Your task to perform on an android device: Go to accessibility settings Image 0: 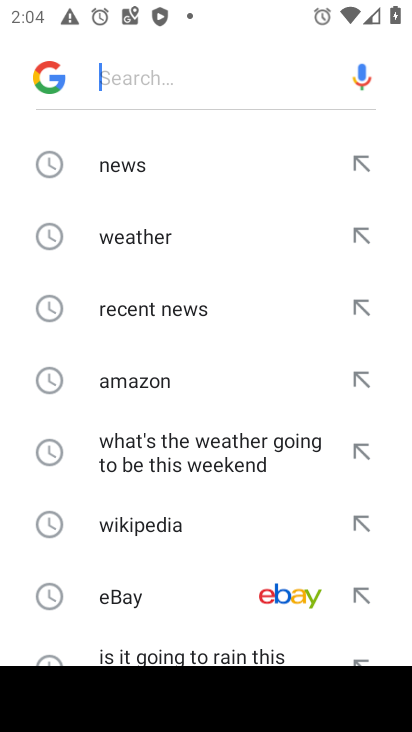
Step 0: press home button
Your task to perform on an android device: Go to accessibility settings Image 1: 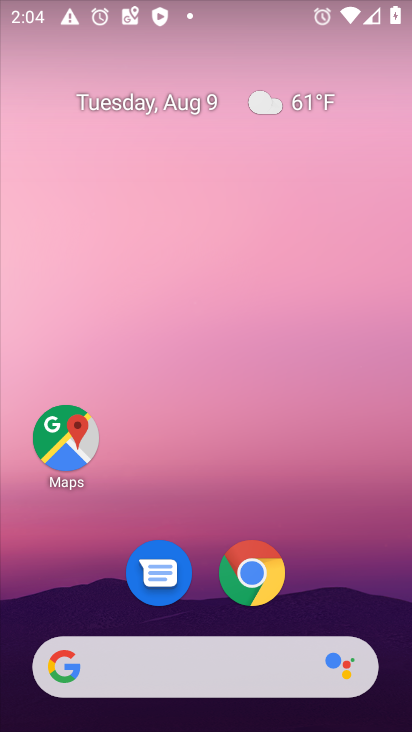
Step 1: drag from (38, 548) to (171, 98)
Your task to perform on an android device: Go to accessibility settings Image 2: 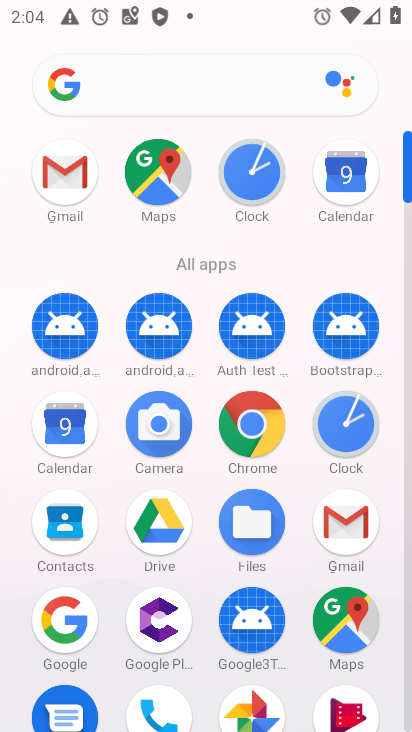
Step 2: drag from (52, 363) to (150, 125)
Your task to perform on an android device: Go to accessibility settings Image 3: 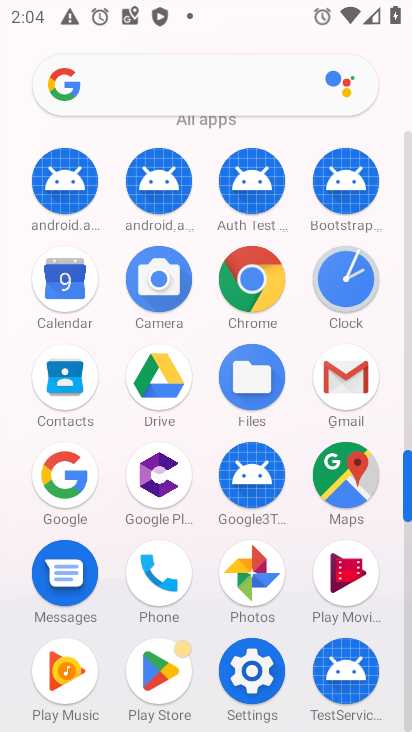
Step 3: click (248, 671)
Your task to perform on an android device: Go to accessibility settings Image 4: 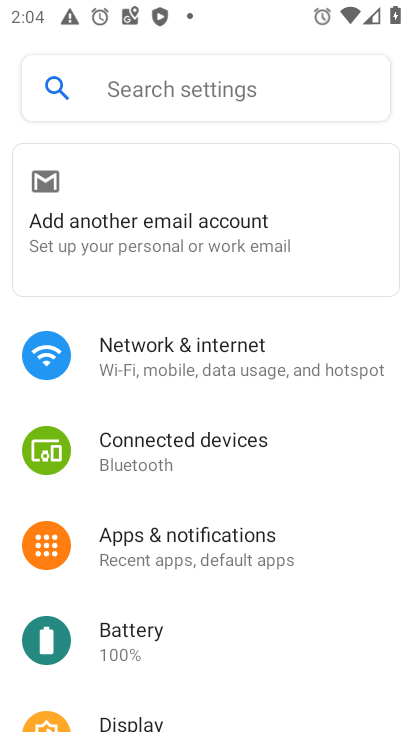
Step 4: drag from (5, 596) to (168, 189)
Your task to perform on an android device: Go to accessibility settings Image 5: 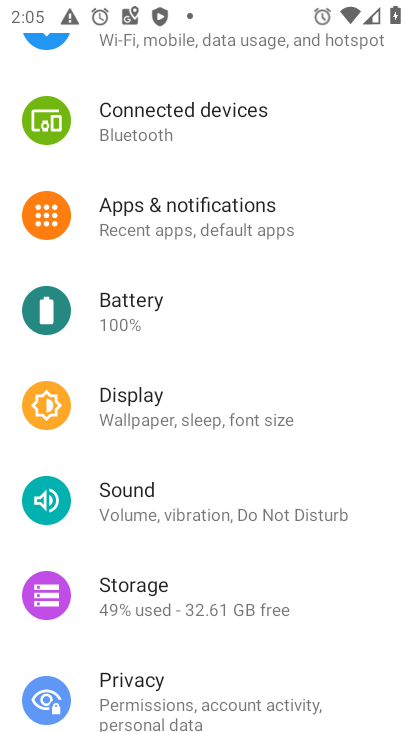
Step 5: drag from (27, 591) to (224, 165)
Your task to perform on an android device: Go to accessibility settings Image 6: 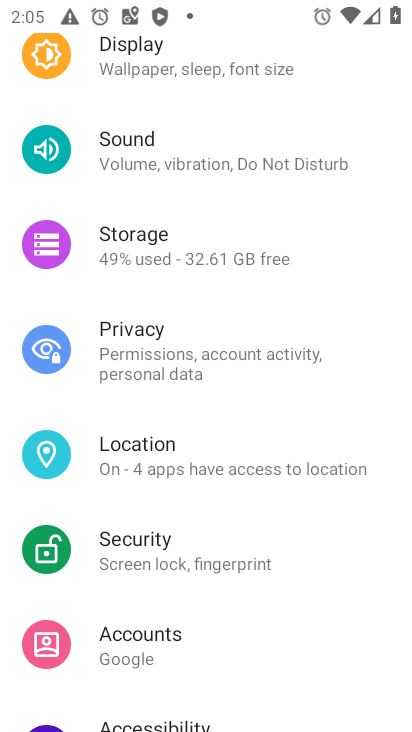
Step 6: click (117, 725)
Your task to perform on an android device: Go to accessibility settings Image 7: 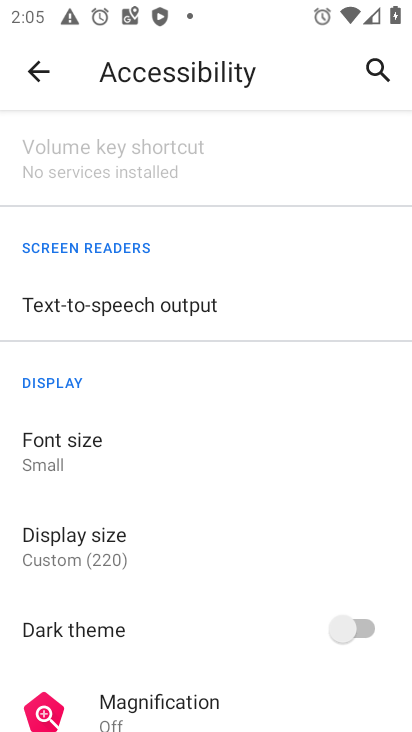
Step 7: task complete